Your task to perform on an android device: turn off airplane mode Image 0: 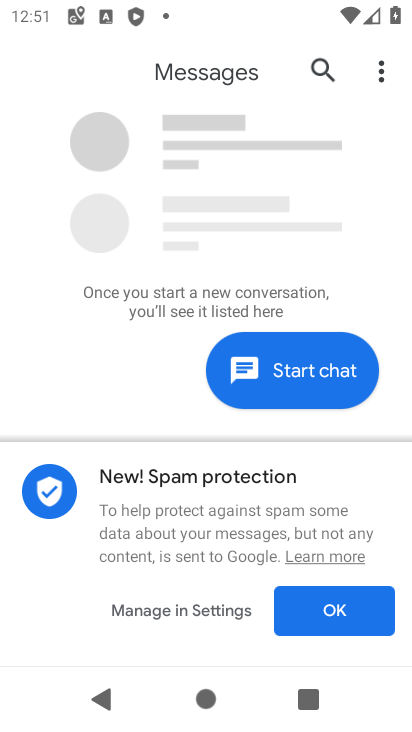
Step 0: press home button
Your task to perform on an android device: turn off airplane mode Image 1: 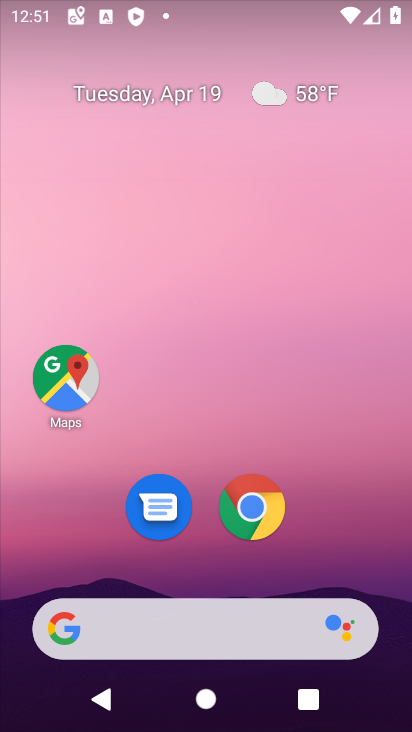
Step 1: drag from (208, 527) to (203, 80)
Your task to perform on an android device: turn off airplane mode Image 2: 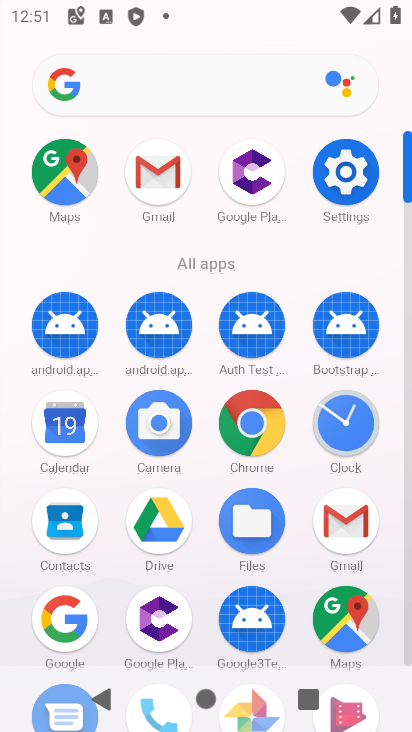
Step 2: click (345, 180)
Your task to perform on an android device: turn off airplane mode Image 3: 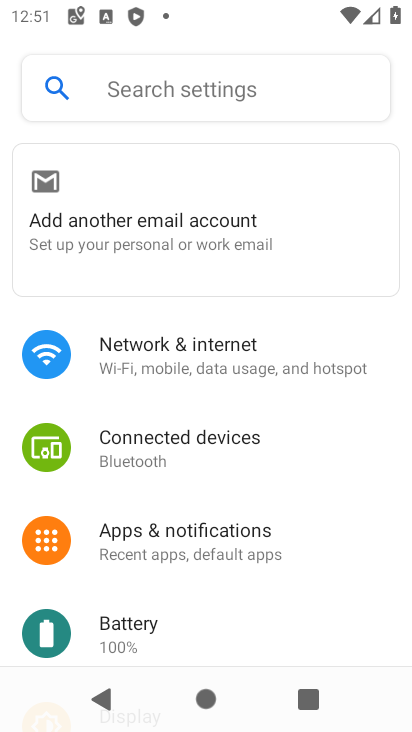
Step 3: click (207, 359)
Your task to perform on an android device: turn off airplane mode Image 4: 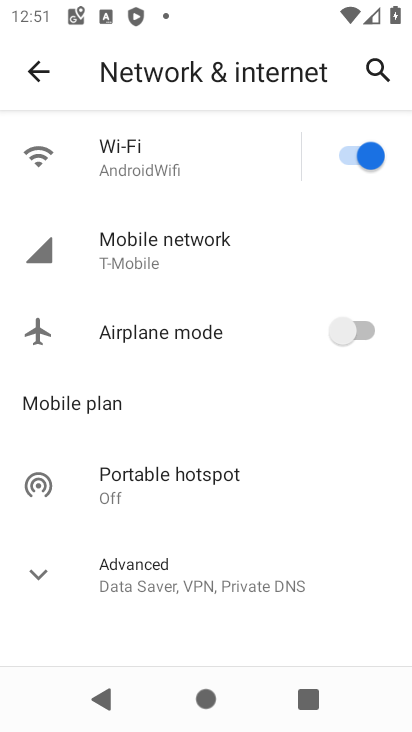
Step 4: task complete